Your task to perform on an android device: Open privacy settings Image 0: 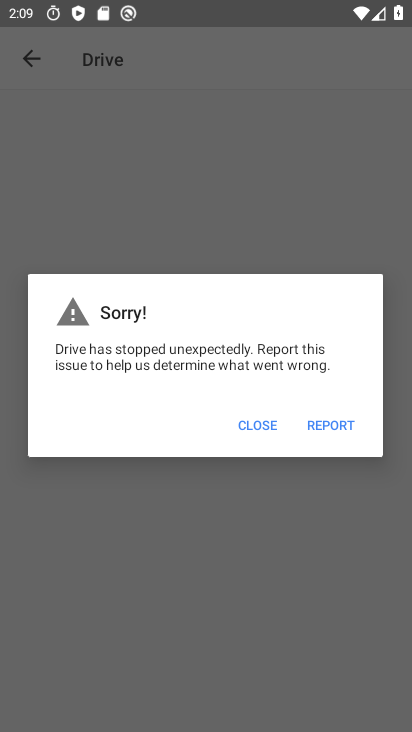
Step 0: press home button
Your task to perform on an android device: Open privacy settings Image 1: 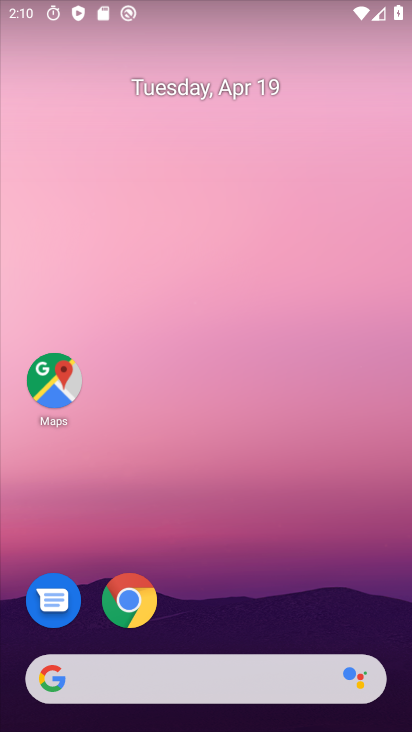
Step 1: drag from (303, 707) to (307, 263)
Your task to perform on an android device: Open privacy settings Image 2: 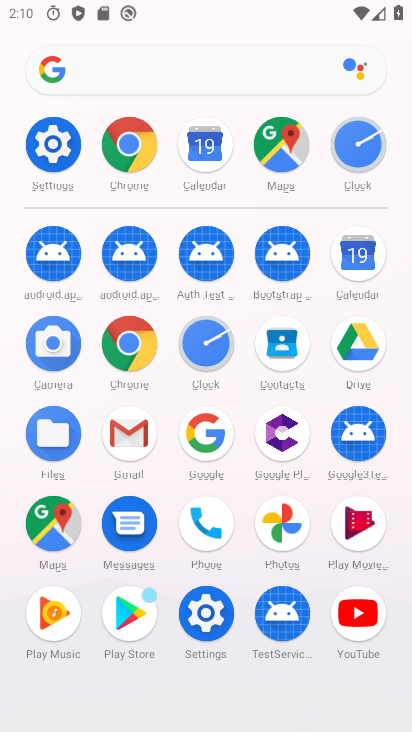
Step 2: click (59, 147)
Your task to perform on an android device: Open privacy settings Image 3: 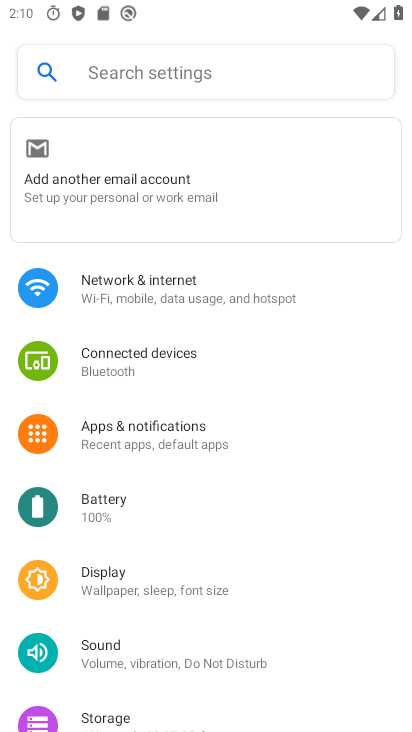
Step 3: drag from (147, 577) to (193, 501)
Your task to perform on an android device: Open privacy settings Image 4: 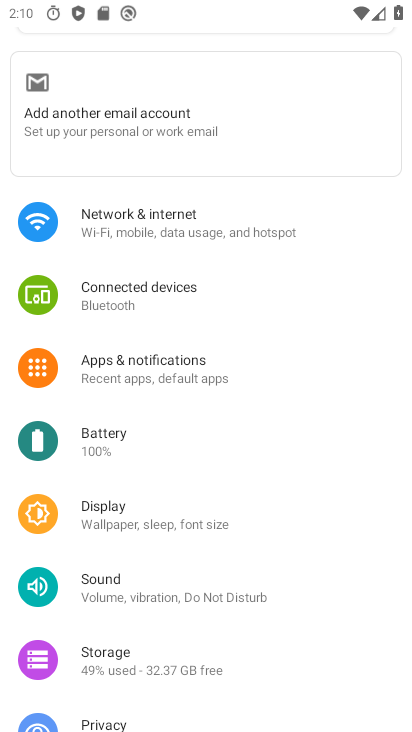
Step 4: click (106, 718)
Your task to perform on an android device: Open privacy settings Image 5: 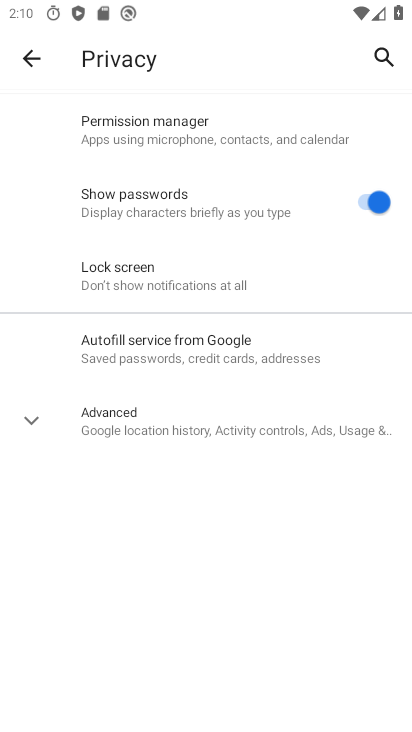
Step 5: click (13, 420)
Your task to perform on an android device: Open privacy settings Image 6: 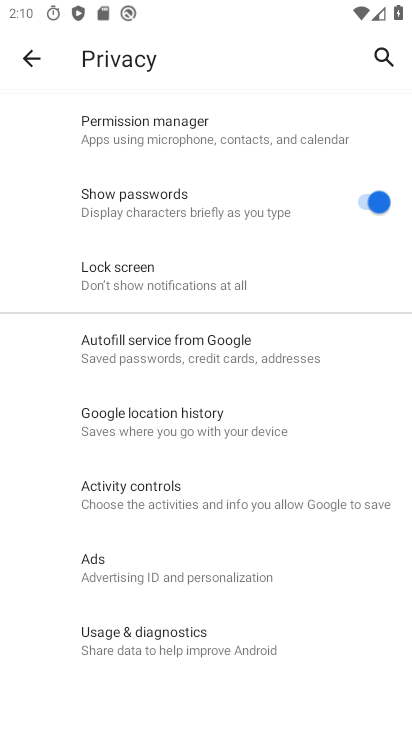
Step 6: task complete